Your task to perform on an android device: change notification settings in the gmail app Image 0: 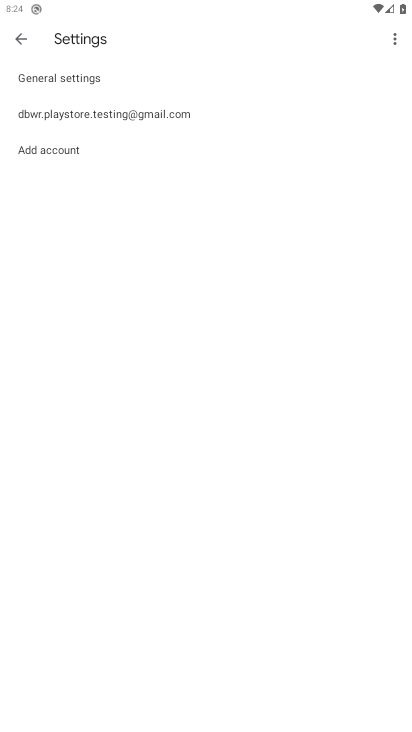
Step 0: click (69, 81)
Your task to perform on an android device: change notification settings in the gmail app Image 1: 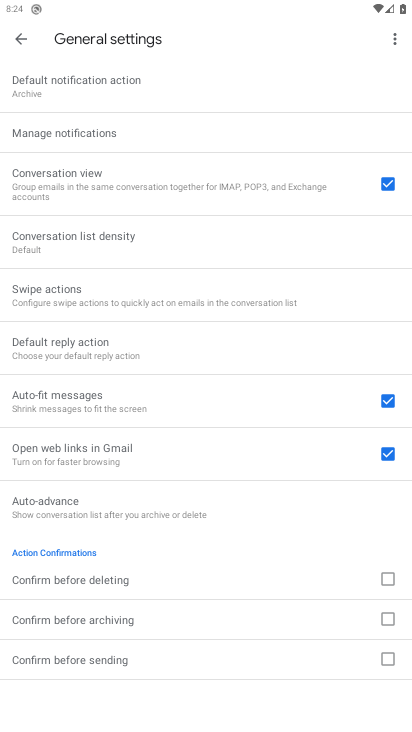
Step 1: click (80, 135)
Your task to perform on an android device: change notification settings in the gmail app Image 2: 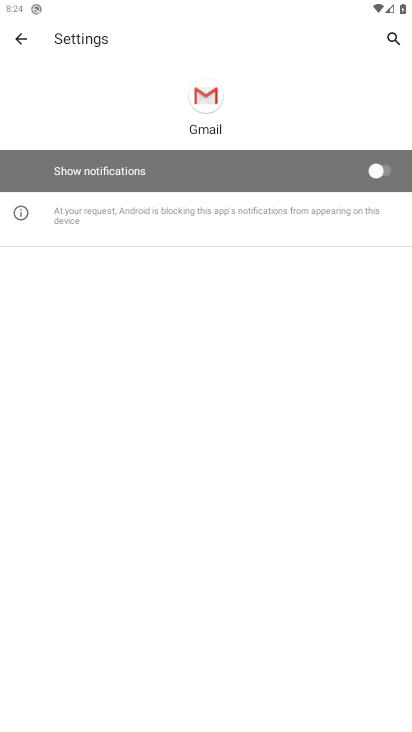
Step 2: click (363, 171)
Your task to perform on an android device: change notification settings in the gmail app Image 3: 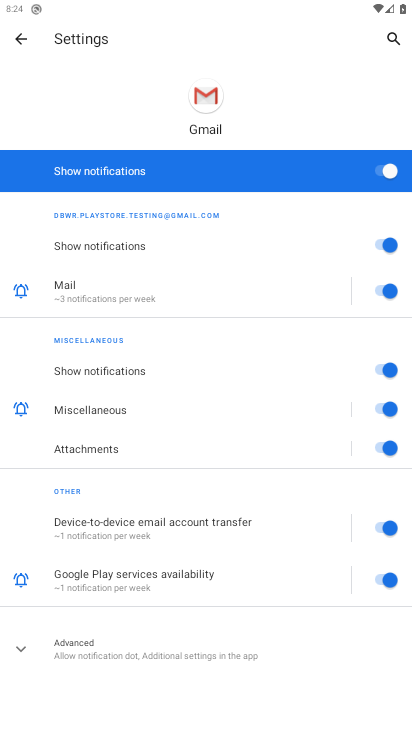
Step 3: task complete